Your task to perform on an android device: refresh tabs in the chrome app Image 0: 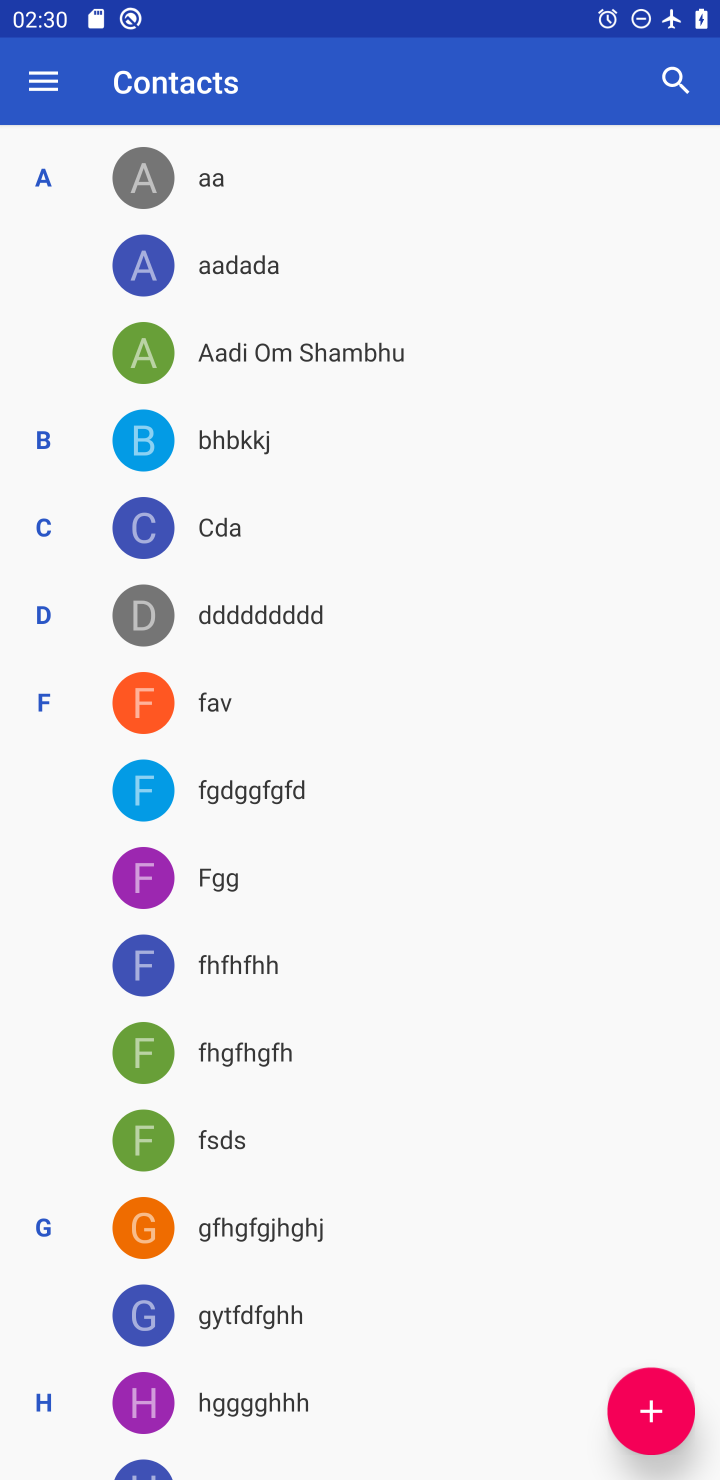
Step 0: press home button
Your task to perform on an android device: refresh tabs in the chrome app Image 1: 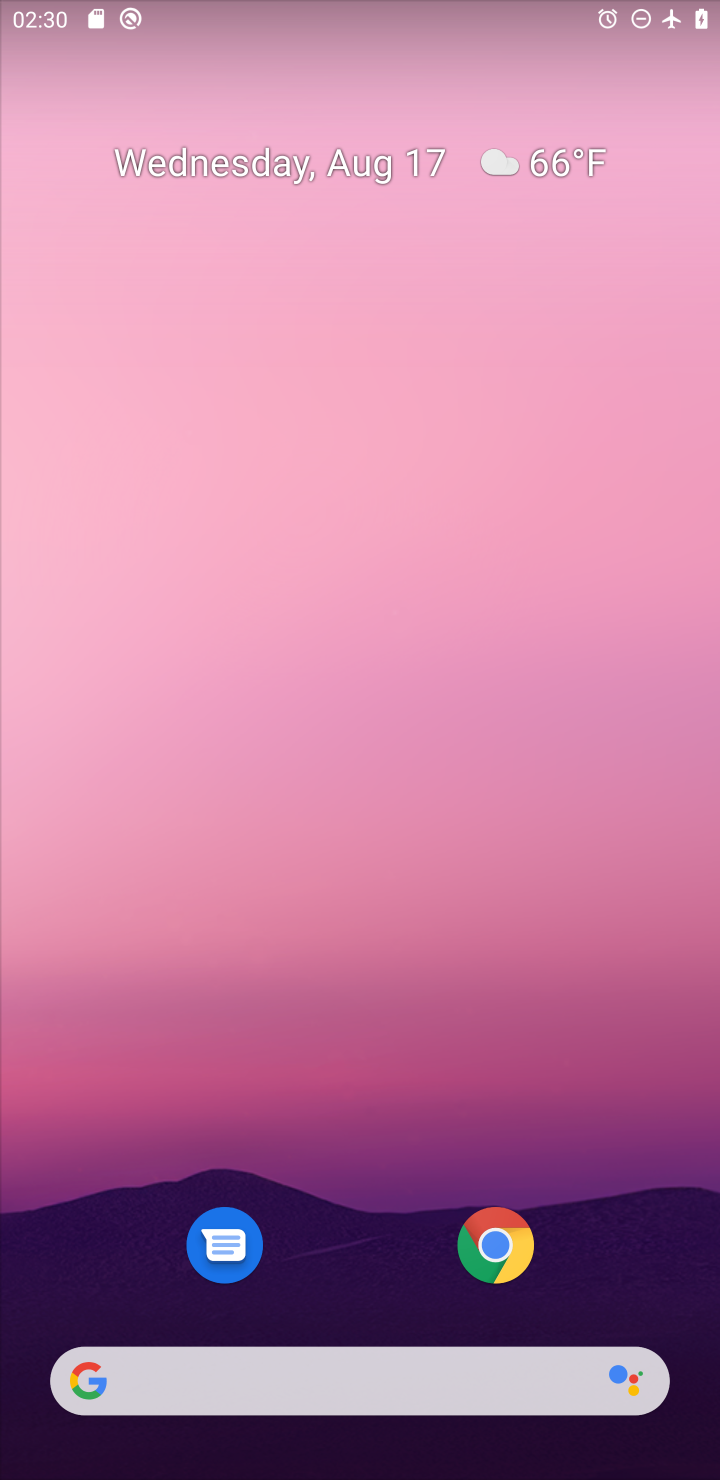
Step 1: click (494, 1245)
Your task to perform on an android device: refresh tabs in the chrome app Image 2: 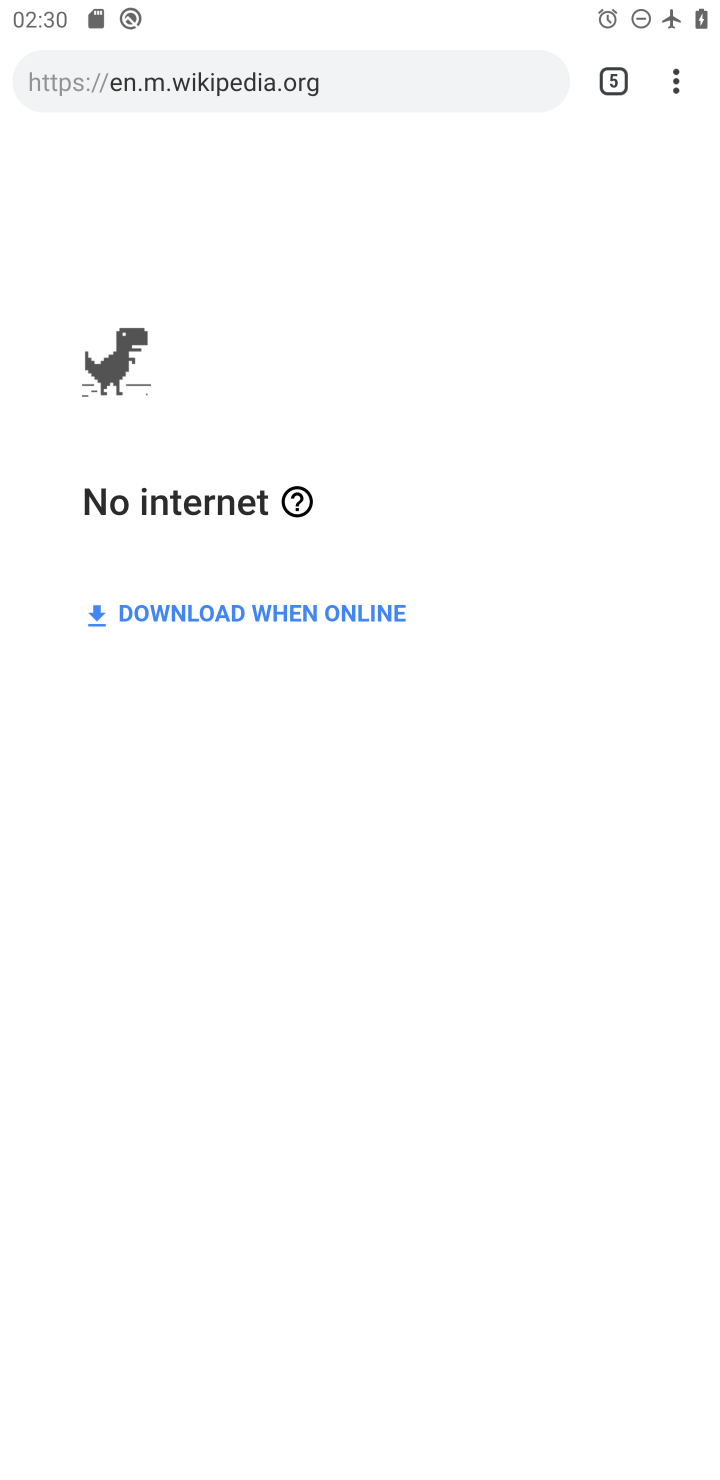
Step 2: click (677, 87)
Your task to perform on an android device: refresh tabs in the chrome app Image 3: 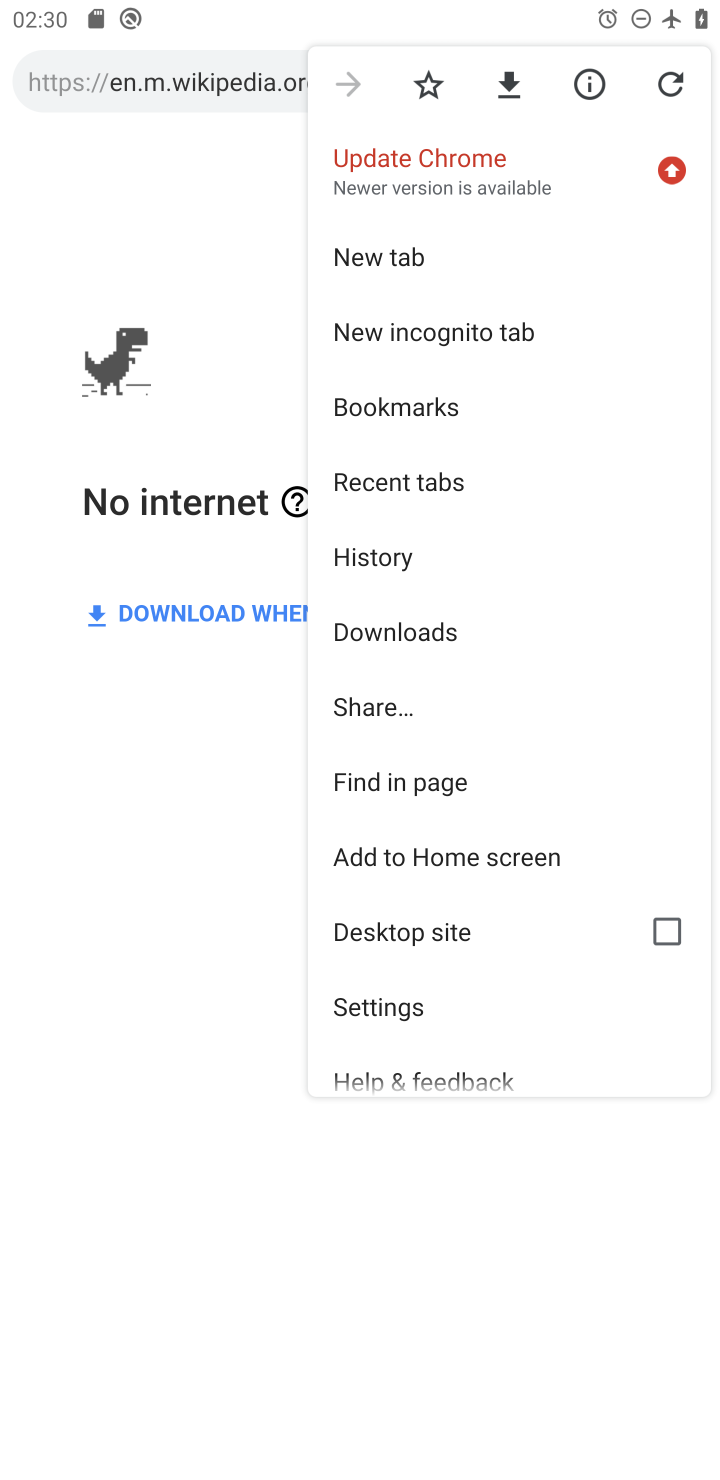
Step 3: click (669, 77)
Your task to perform on an android device: refresh tabs in the chrome app Image 4: 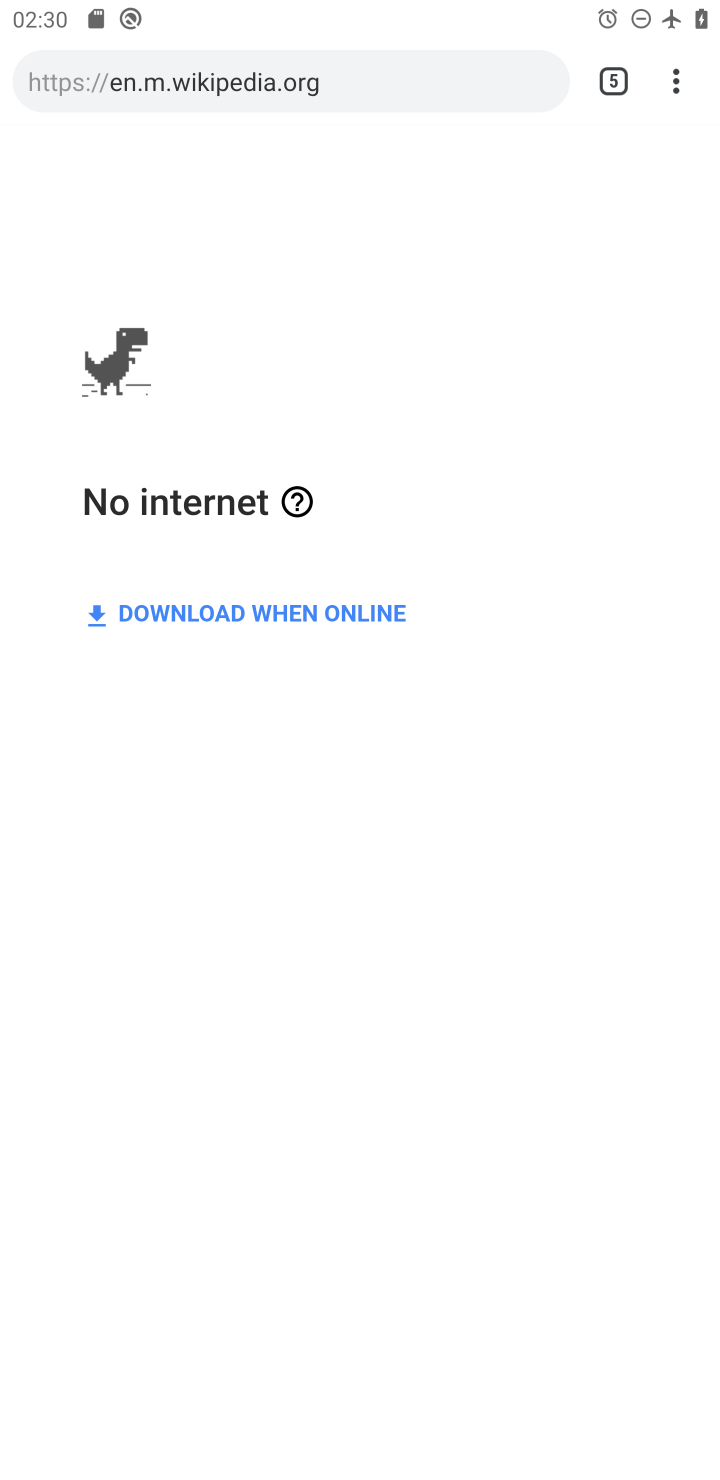
Step 4: task complete